Your task to perform on an android device: Open the calendar app, open the side menu, and click the "Day" option Image 0: 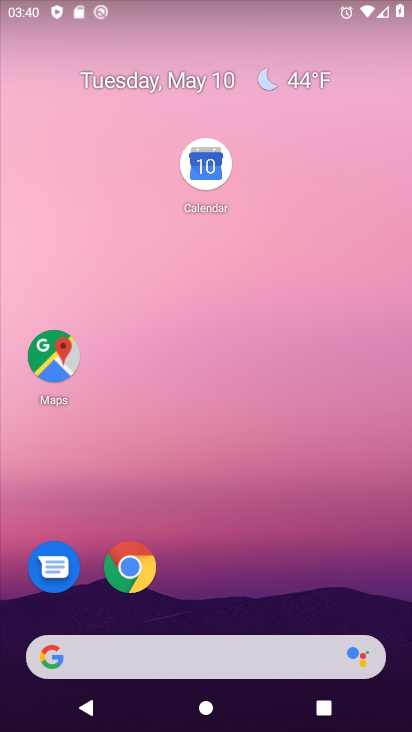
Step 0: drag from (245, 577) to (290, 53)
Your task to perform on an android device: Open the calendar app, open the side menu, and click the "Day" option Image 1: 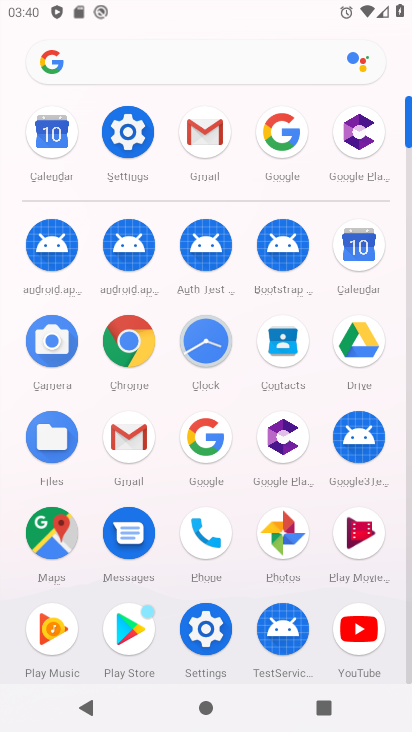
Step 1: click (362, 254)
Your task to perform on an android device: Open the calendar app, open the side menu, and click the "Day" option Image 2: 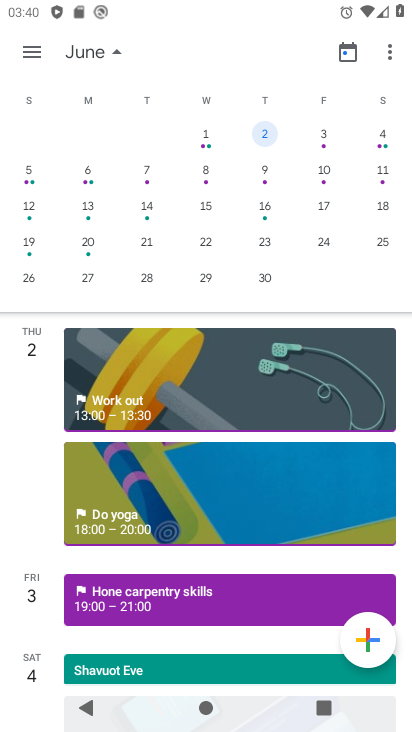
Step 2: drag from (28, 299) to (394, 286)
Your task to perform on an android device: Open the calendar app, open the side menu, and click the "Day" option Image 3: 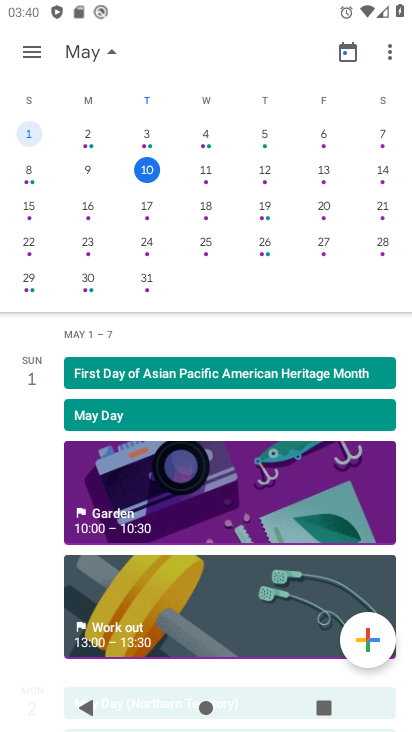
Step 3: click (28, 49)
Your task to perform on an android device: Open the calendar app, open the side menu, and click the "Day" option Image 4: 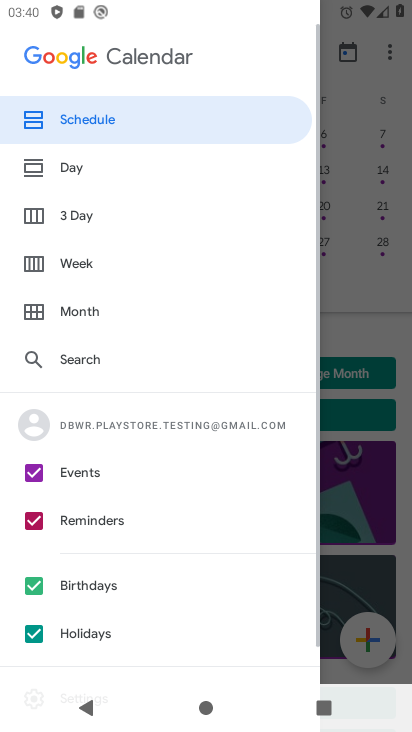
Step 4: click (114, 182)
Your task to perform on an android device: Open the calendar app, open the side menu, and click the "Day" option Image 5: 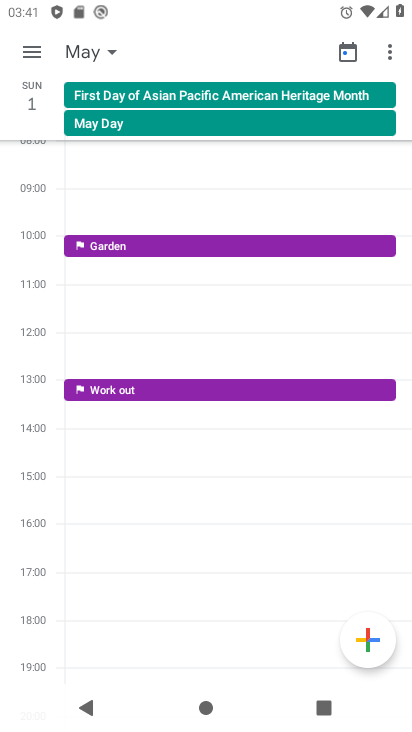
Step 5: task complete